Your task to perform on an android device: turn off notifications settings in the gmail app Image 0: 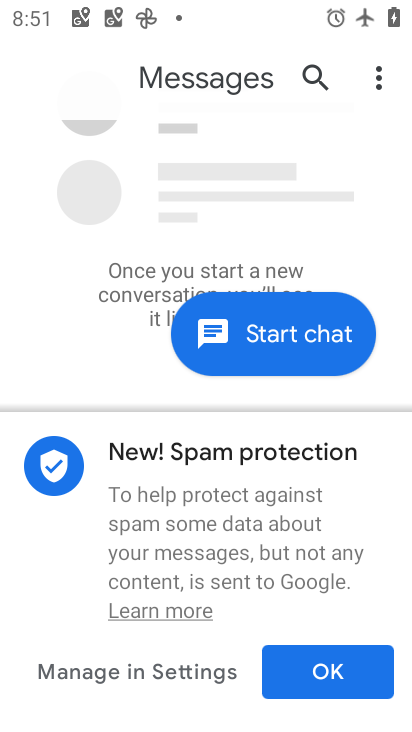
Step 0: press home button
Your task to perform on an android device: turn off notifications settings in the gmail app Image 1: 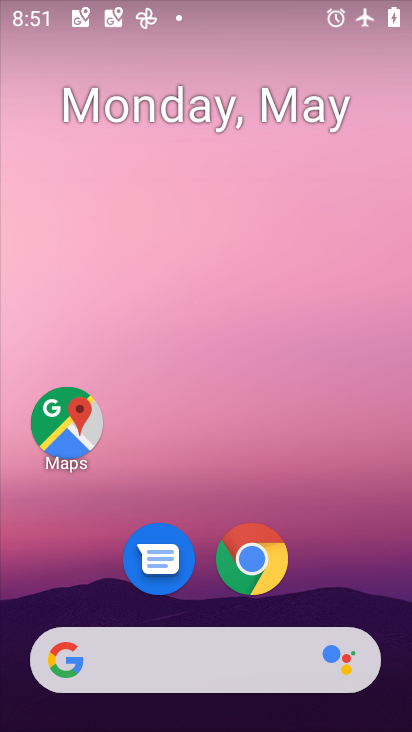
Step 1: drag from (400, 674) to (241, 13)
Your task to perform on an android device: turn off notifications settings in the gmail app Image 2: 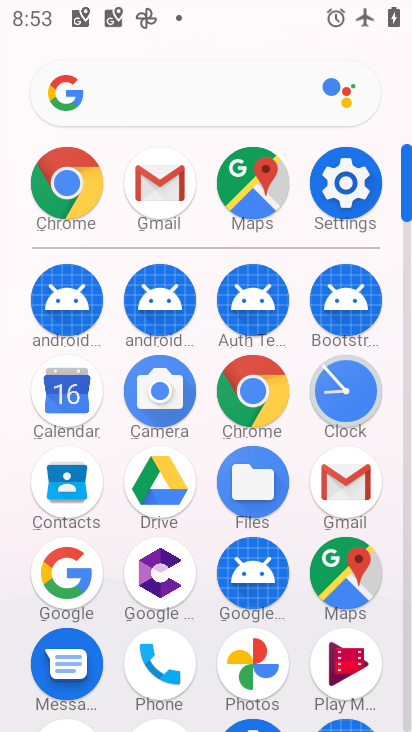
Step 2: click (343, 491)
Your task to perform on an android device: turn off notifications settings in the gmail app Image 3: 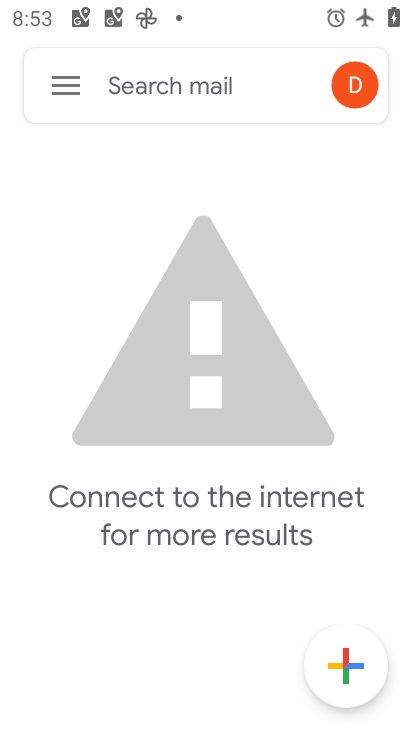
Step 3: click (69, 73)
Your task to perform on an android device: turn off notifications settings in the gmail app Image 4: 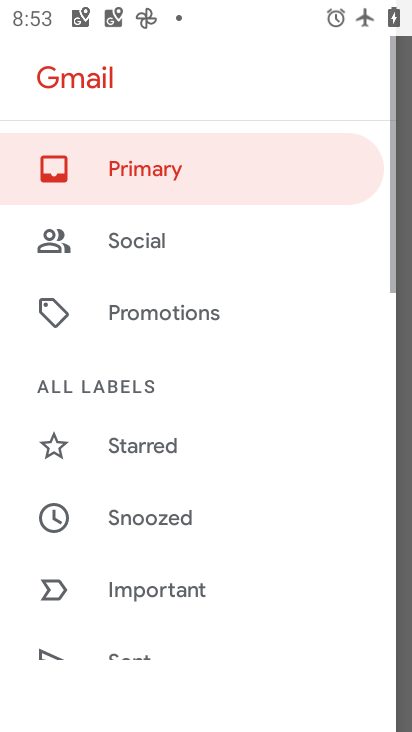
Step 4: drag from (174, 686) to (261, 143)
Your task to perform on an android device: turn off notifications settings in the gmail app Image 5: 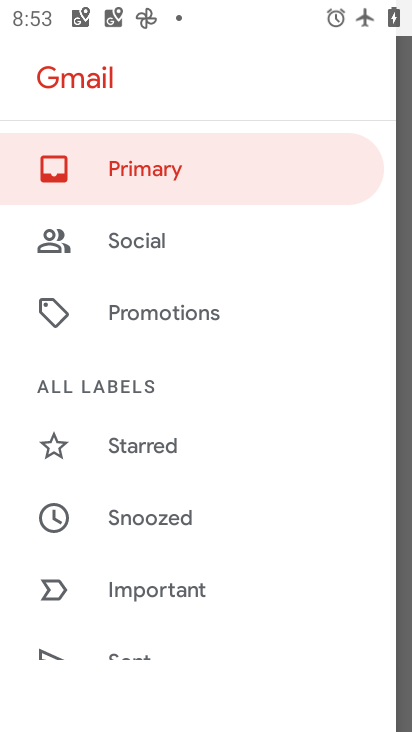
Step 5: drag from (144, 594) to (241, 100)
Your task to perform on an android device: turn off notifications settings in the gmail app Image 6: 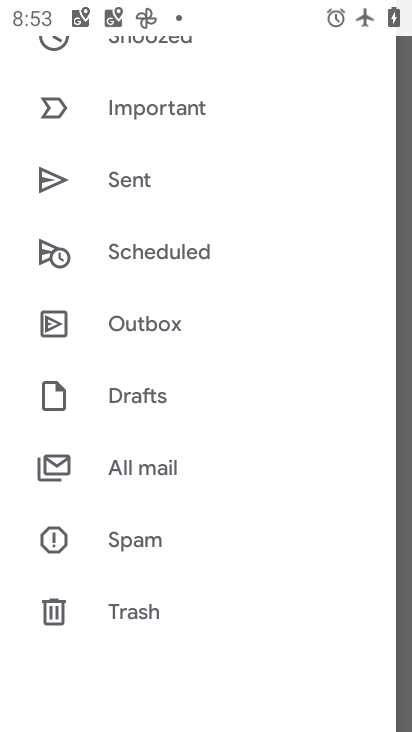
Step 6: drag from (181, 601) to (230, 6)
Your task to perform on an android device: turn off notifications settings in the gmail app Image 7: 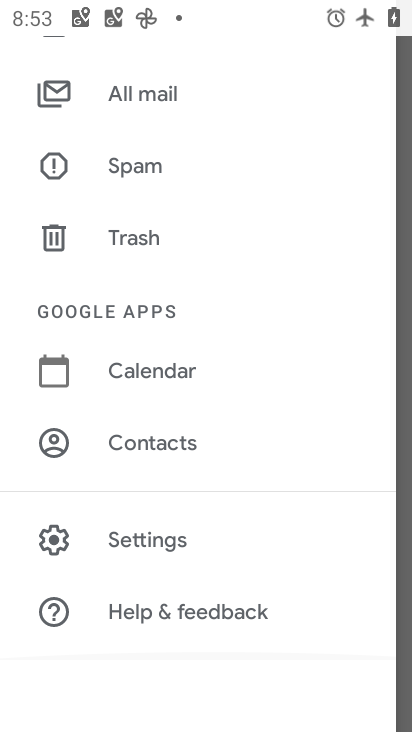
Step 7: click (187, 548)
Your task to perform on an android device: turn off notifications settings in the gmail app Image 8: 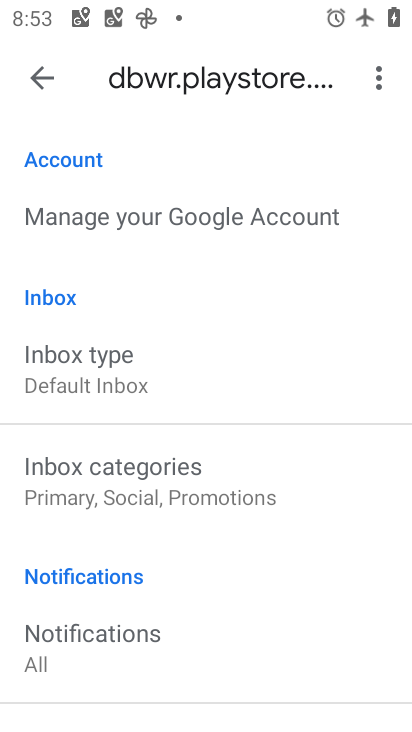
Step 8: click (153, 648)
Your task to perform on an android device: turn off notifications settings in the gmail app Image 9: 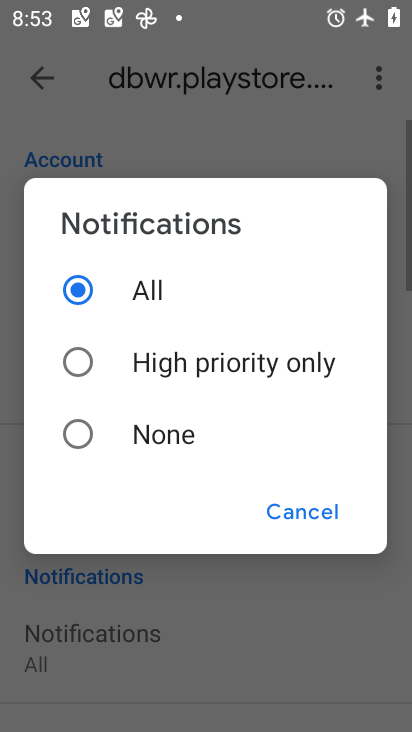
Step 9: click (131, 453)
Your task to perform on an android device: turn off notifications settings in the gmail app Image 10: 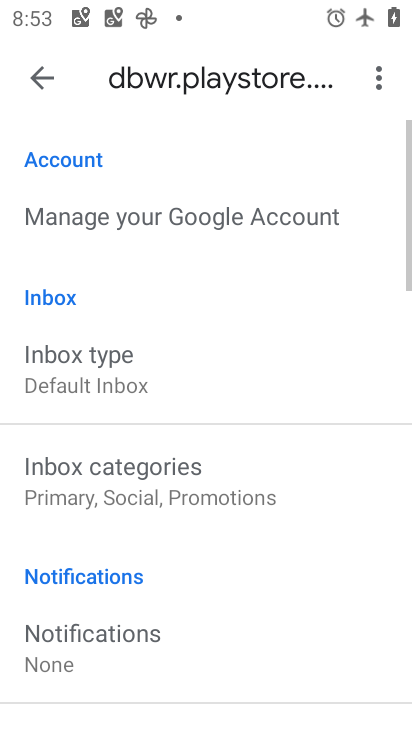
Step 10: task complete